Your task to perform on an android device: Go to Reddit.com Image 0: 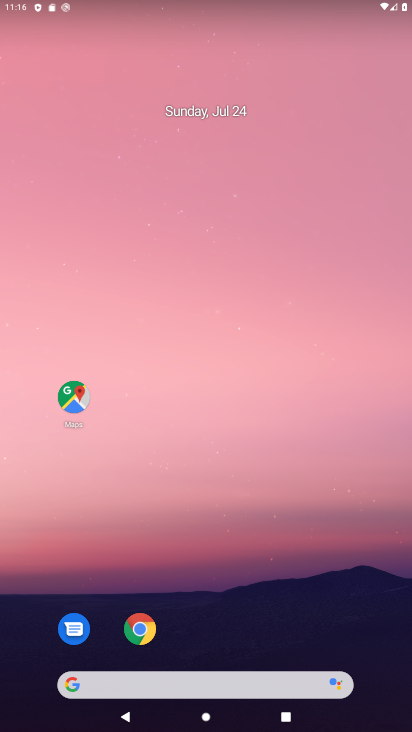
Step 0: click (140, 683)
Your task to perform on an android device: Go to Reddit.com Image 1: 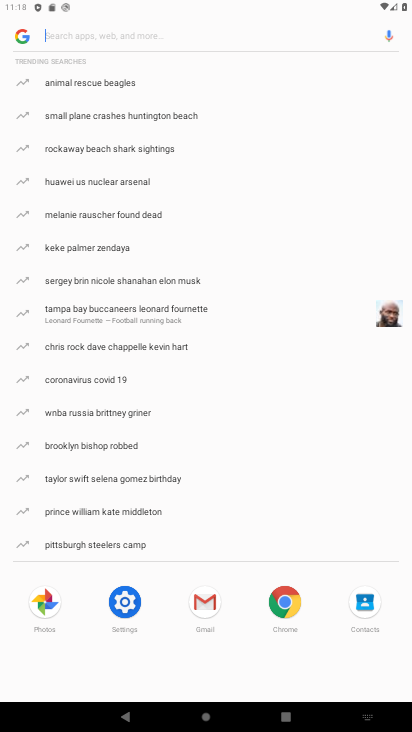
Step 1: type "reddit"
Your task to perform on an android device: Go to Reddit.com Image 2: 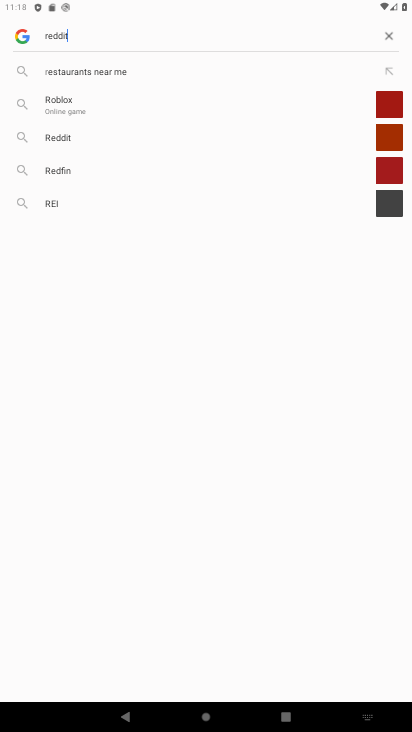
Step 2: type ""
Your task to perform on an android device: Go to Reddit.com Image 3: 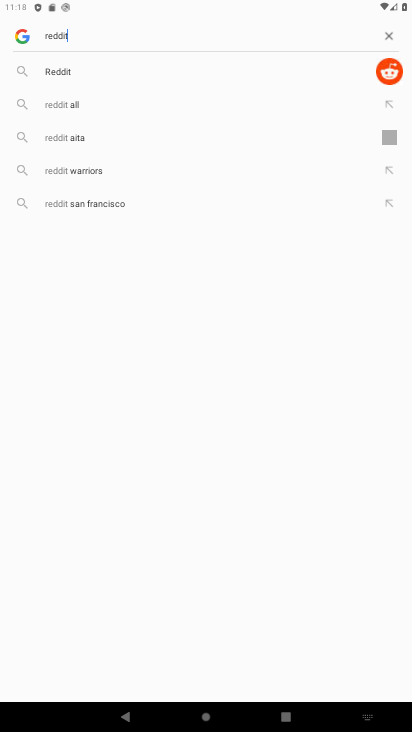
Step 3: click (209, 63)
Your task to perform on an android device: Go to Reddit.com Image 4: 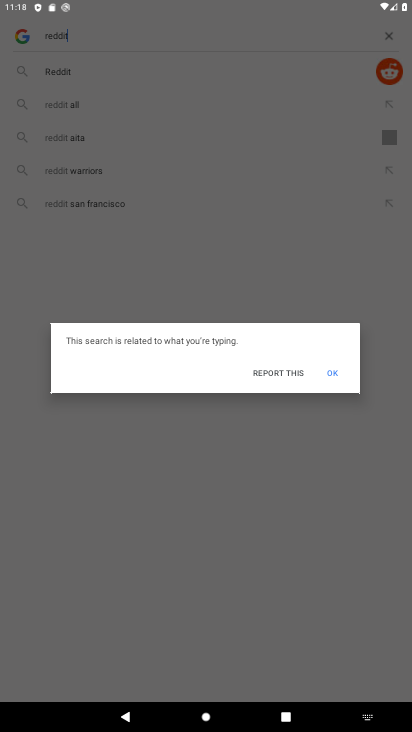
Step 4: click (328, 375)
Your task to perform on an android device: Go to Reddit.com Image 5: 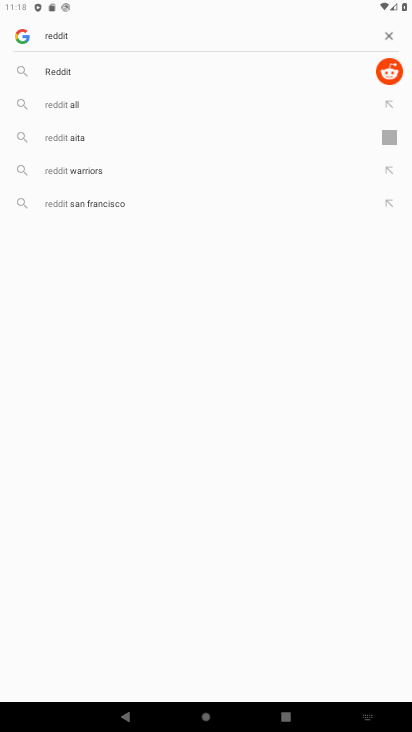
Step 5: click (160, 77)
Your task to perform on an android device: Go to Reddit.com Image 6: 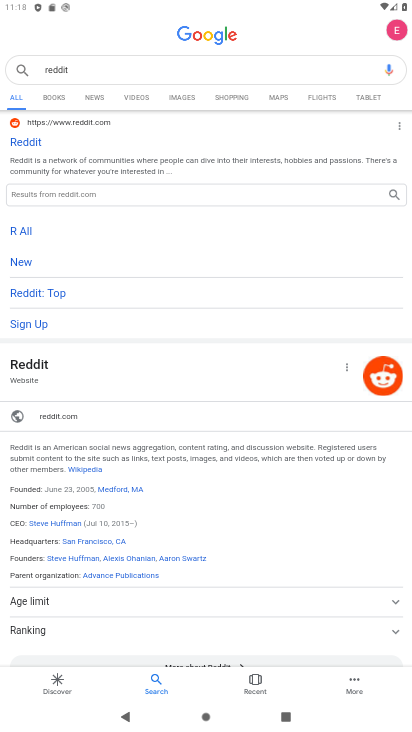
Step 6: click (37, 135)
Your task to perform on an android device: Go to Reddit.com Image 7: 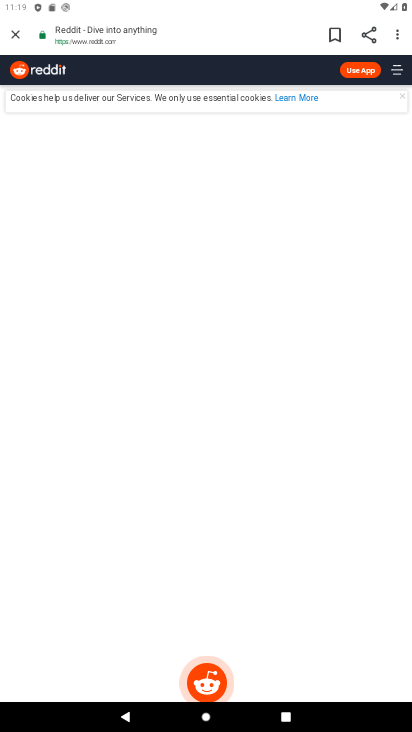
Step 7: task complete